Your task to perform on an android device: What's the weather today? Image 0: 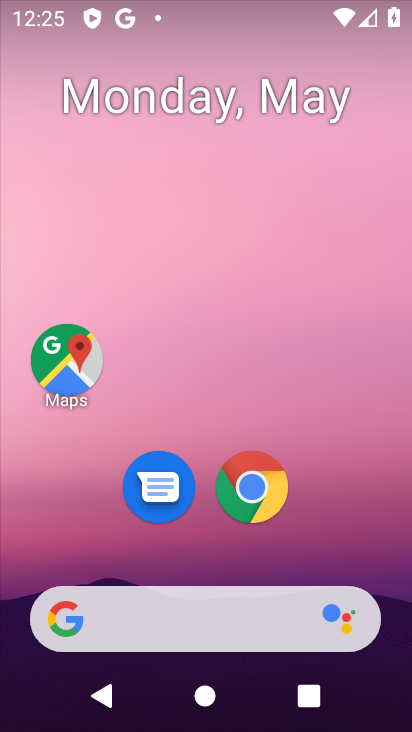
Step 0: drag from (372, 546) to (282, 37)
Your task to perform on an android device: What's the weather today? Image 1: 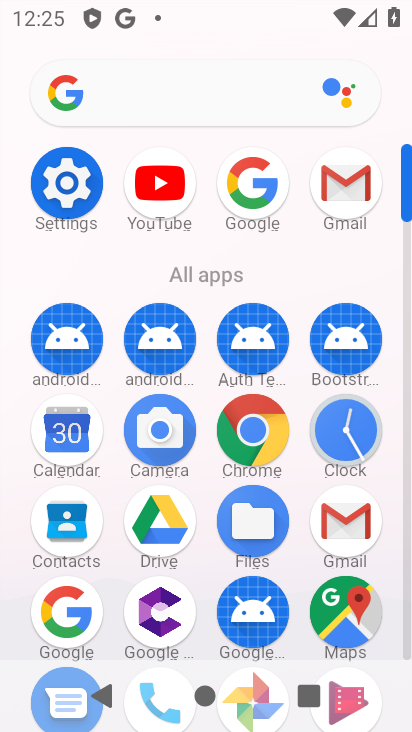
Step 1: click (247, 184)
Your task to perform on an android device: What's the weather today? Image 2: 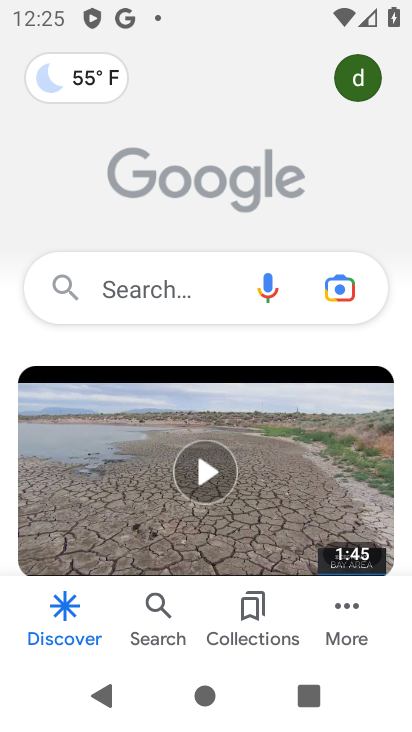
Step 2: click (115, 85)
Your task to perform on an android device: What's the weather today? Image 3: 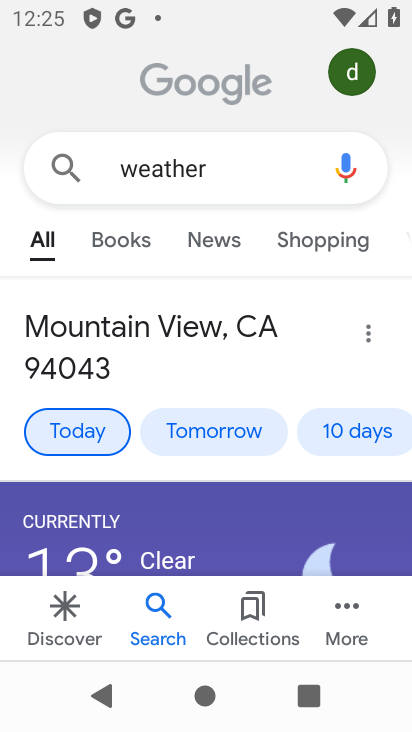
Step 3: task complete